Your task to perform on an android device: turn on notifications settings in the gmail app Image 0: 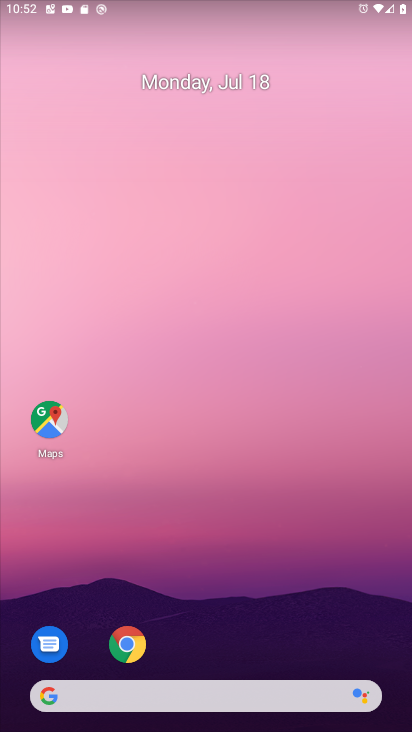
Step 0: drag from (279, 647) to (133, 87)
Your task to perform on an android device: turn on notifications settings in the gmail app Image 1: 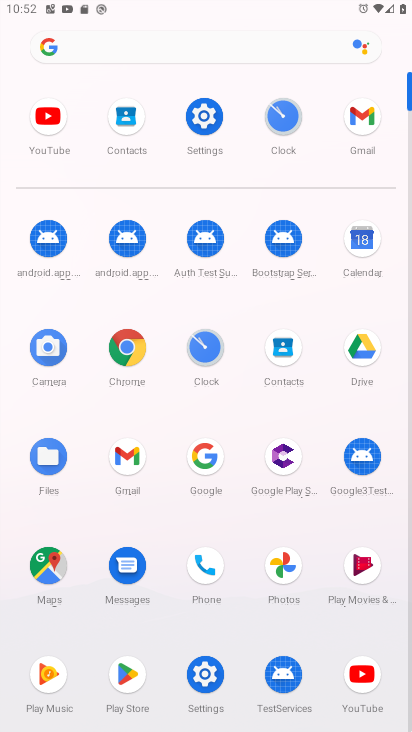
Step 1: click (377, 138)
Your task to perform on an android device: turn on notifications settings in the gmail app Image 2: 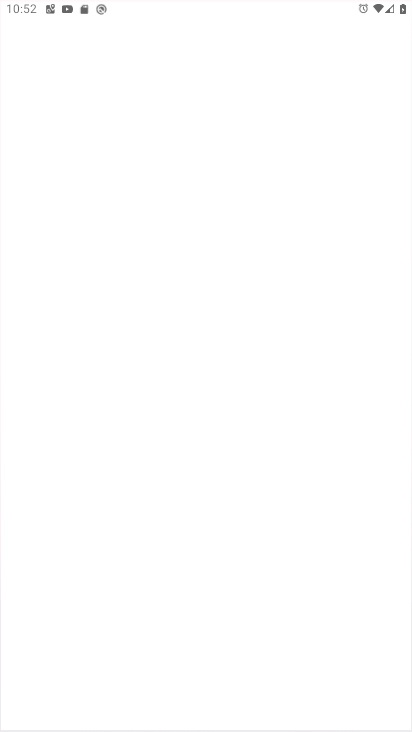
Step 2: task complete